Your task to perform on an android device: Go to notification settings Image 0: 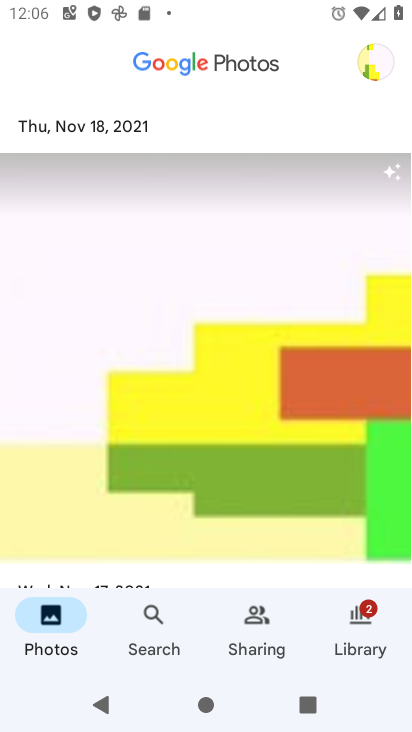
Step 0: press home button
Your task to perform on an android device: Go to notification settings Image 1: 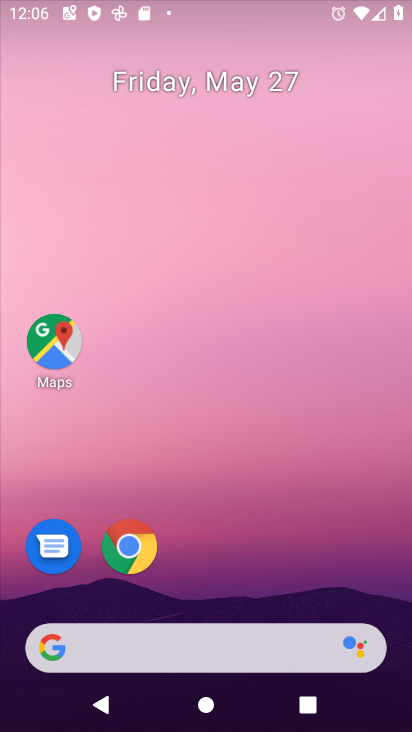
Step 1: drag from (218, 569) to (248, 35)
Your task to perform on an android device: Go to notification settings Image 2: 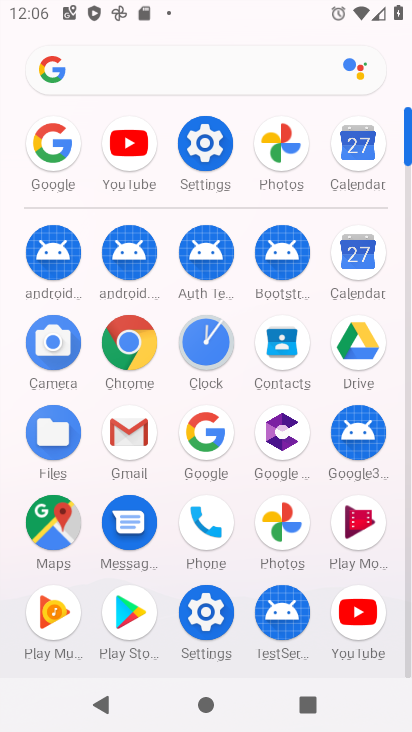
Step 2: click (207, 143)
Your task to perform on an android device: Go to notification settings Image 3: 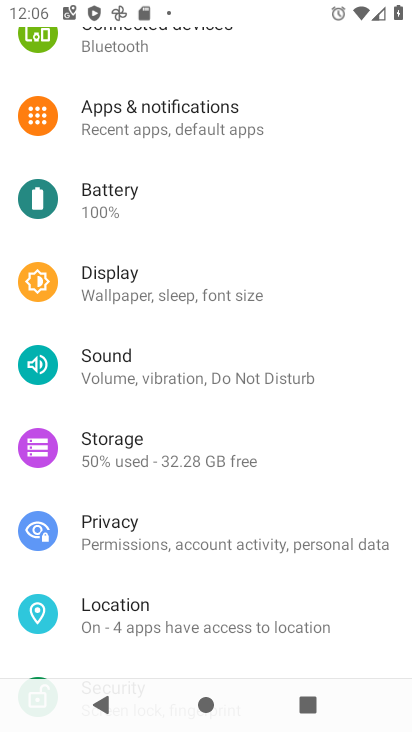
Step 3: click (188, 114)
Your task to perform on an android device: Go to notification settings Image 4: 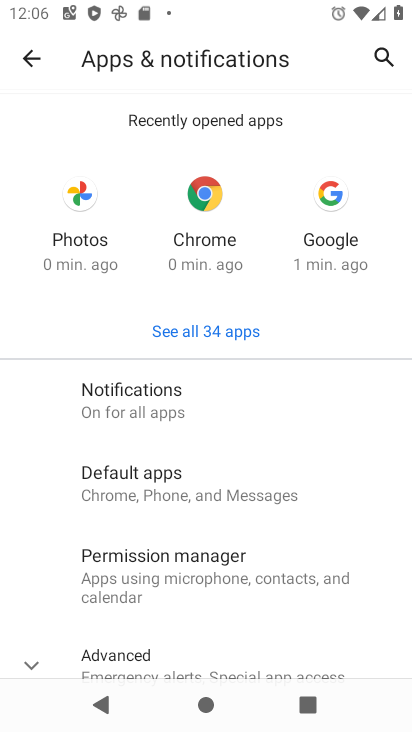
Step 4: click (163, 395)
Your task to perform on an android device: Go to notification settings Image 5: 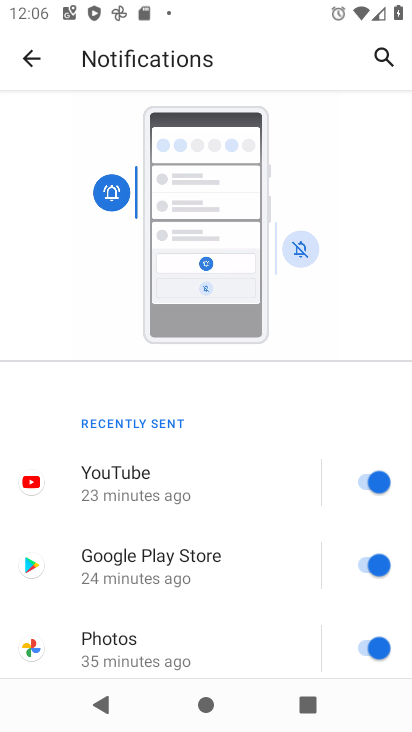
Step 5: task complete